Your task to perform on an android device: toggle translation in the chrome app Image 0: 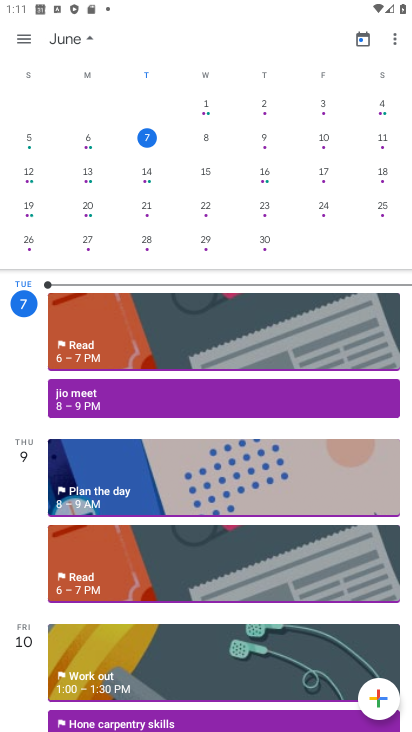
Step 0: press home button
Your task to perform on an android device: toggle translation in the chrome app Image 1: 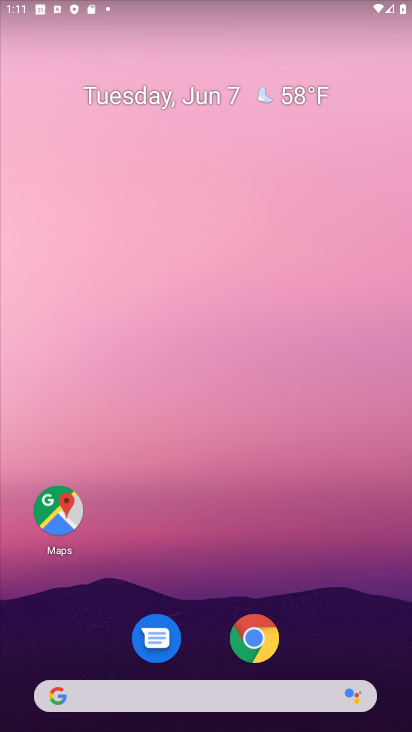
Step 1: drag from (222, 623) to (250, 143)
Your task to perform on an android device: toggle translation in the chrome app Image 2: 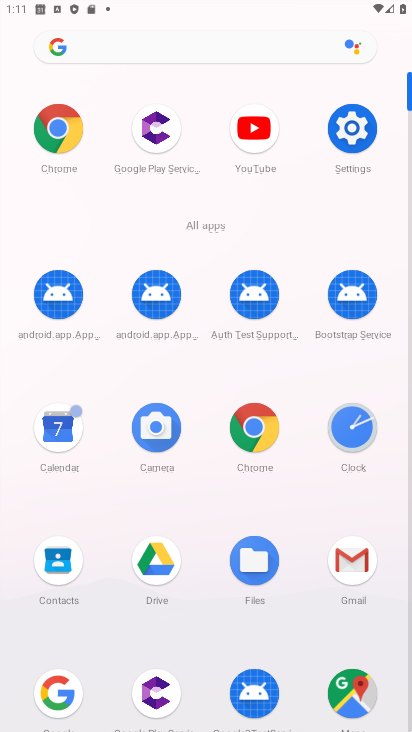
Step 2: click (42, 129)
Your task to perform on an android device: toggle translation in the chrome app Image 3: 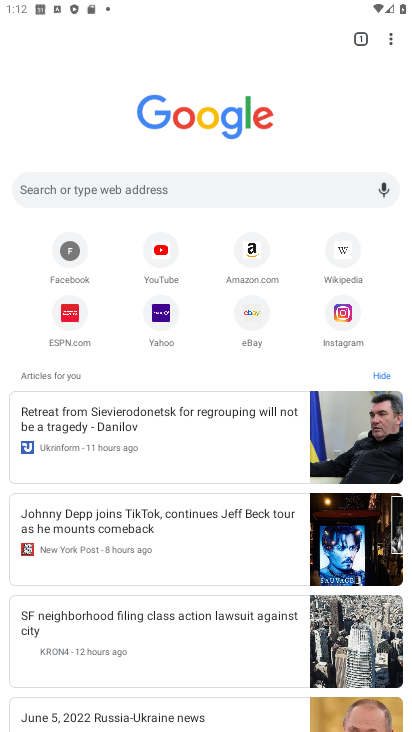
Step 3: click (388, 35)
Your task to perform on an android device: toggle translation in the chrome app Image 4: 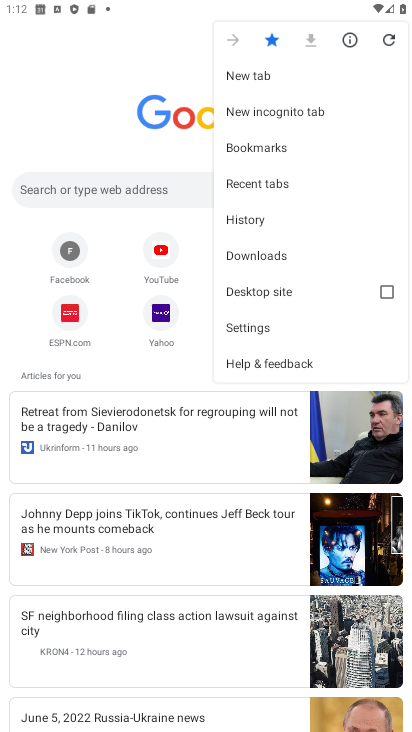
Step 4: click (246, 334)
Your task to perform on an android device: toggle translation in the chrome app Image 5: 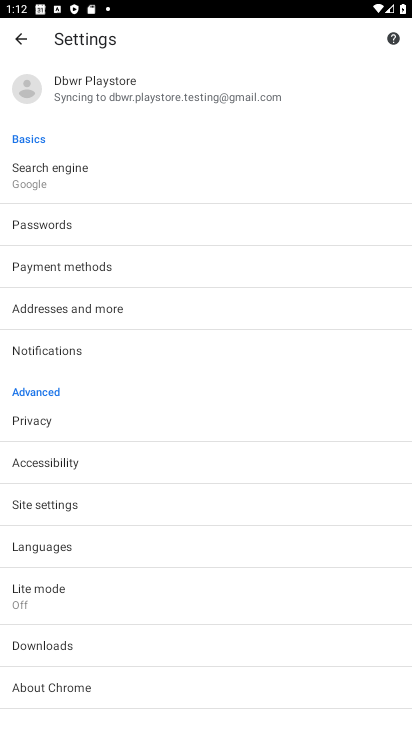
Step 5: click (38, 549)
Your task to perform on an android device: toggle translation in the chrome app Image 6: 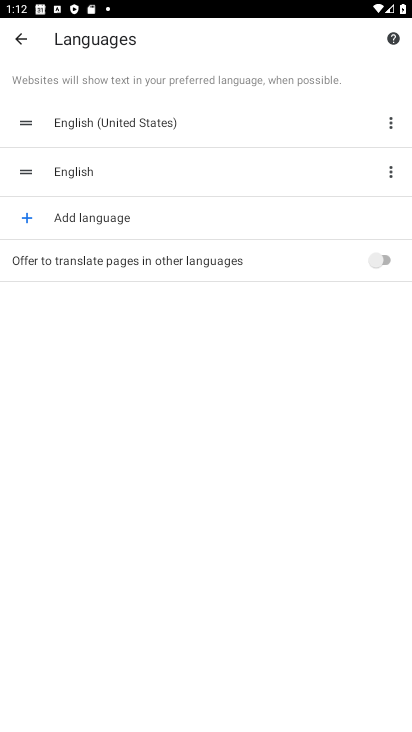
Step 6: click (379, 258)
Your task to perform on an android device: toggle translation in the chrome app Image 7: 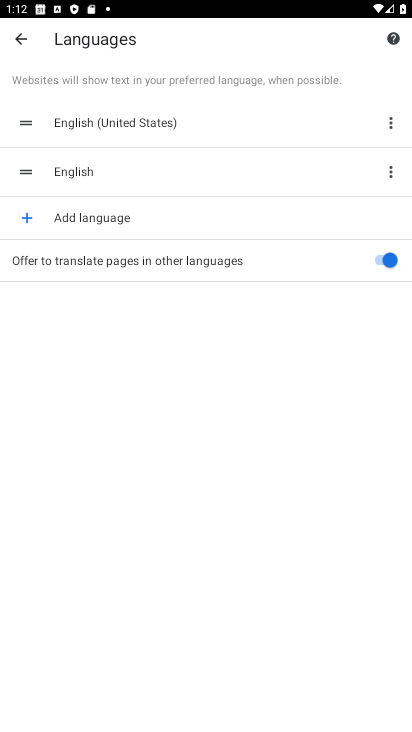
Step 7: task complete